Your task to perform on an android device: add a contact in the contacts app Image 0: 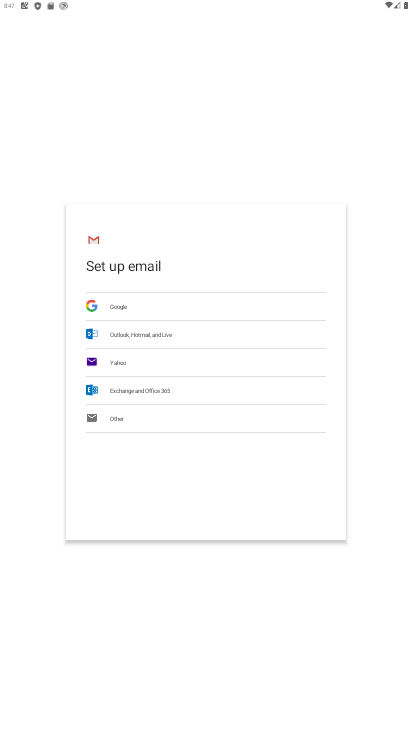
Step 0: press home button
Your task to perform on an android device: add a contact in the contacts app Image 1: 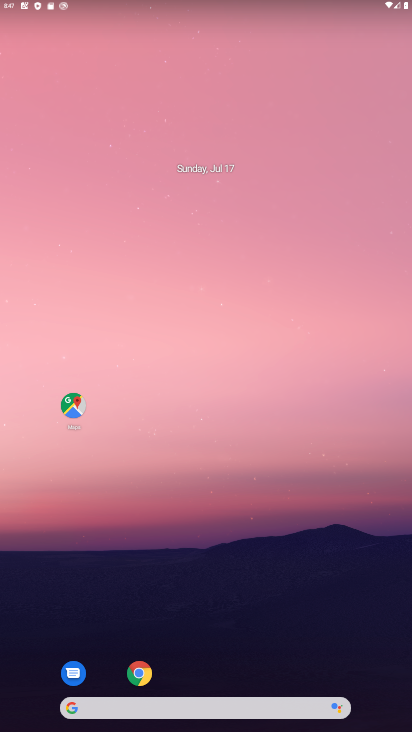
Step 1: drag from (289, 632) to (262, 95)
Your task to perform on an android device: add a contact in the contacts app Image 2: 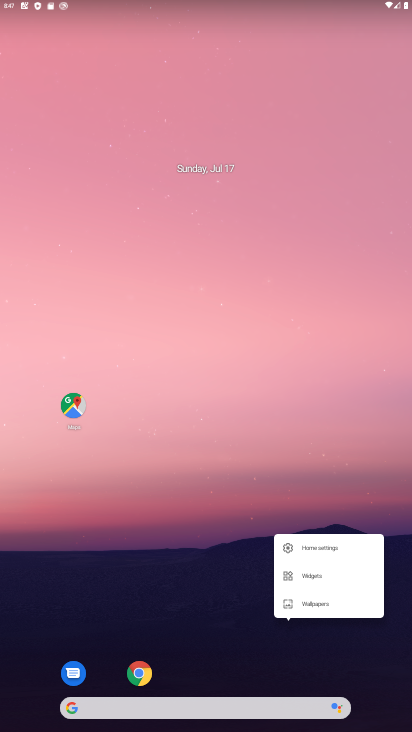
Step 2: click (226, 358)
Your task to perform on an android device: add a contact in the contacts app Image 3: 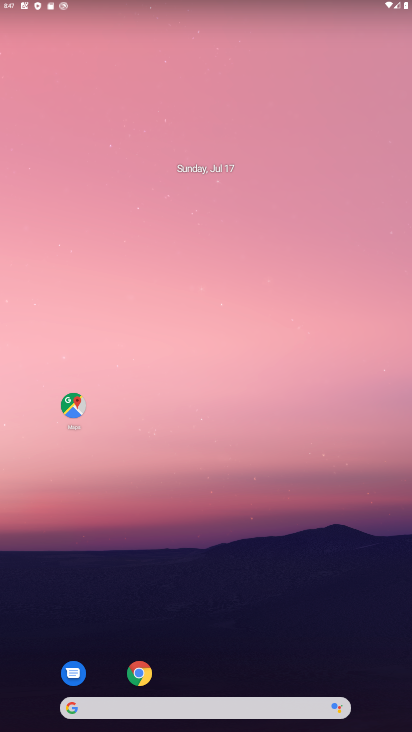
Step 3: click (226, 358)
Your task to perform on an android device: add a contact in the contacts app Image 4: 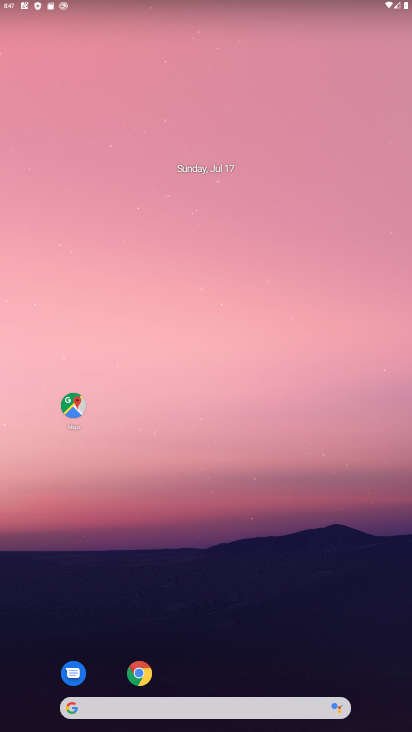
Step 4: drag from (283, 124) to (295, 77)
Your task to perform on an android device: add a contact in the contacts app Image 5: 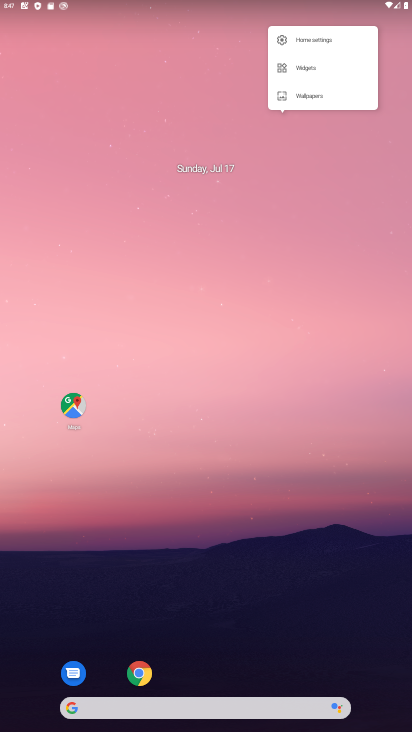
Step 5: click (165, 314)
Your task to perform on an android device: add a contact in the contacts app Image 6: 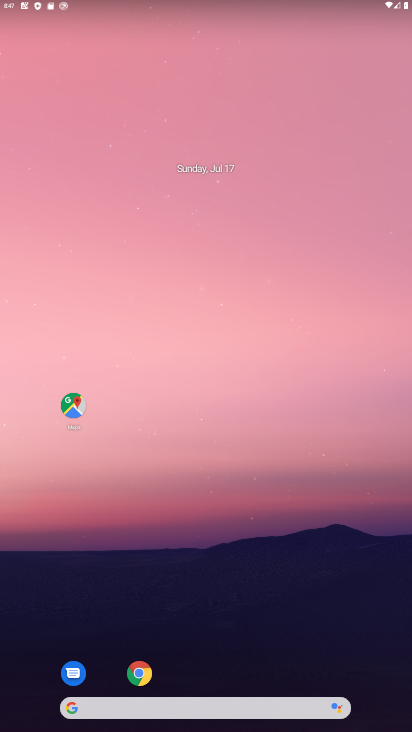
Step 6: click (298, 545)
Your task to perform on an android device: add a contact in the contacts app Image 7: 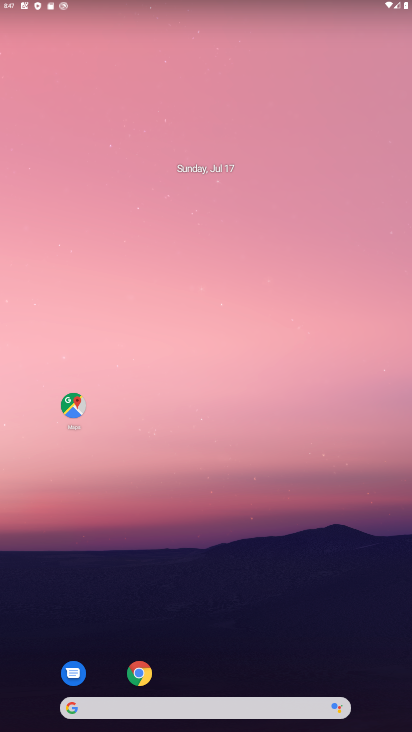
Step 7: drag from (257, 637) to (229, 143)
Your task to perform on an android device: add a contact in the contacts app Image 8: 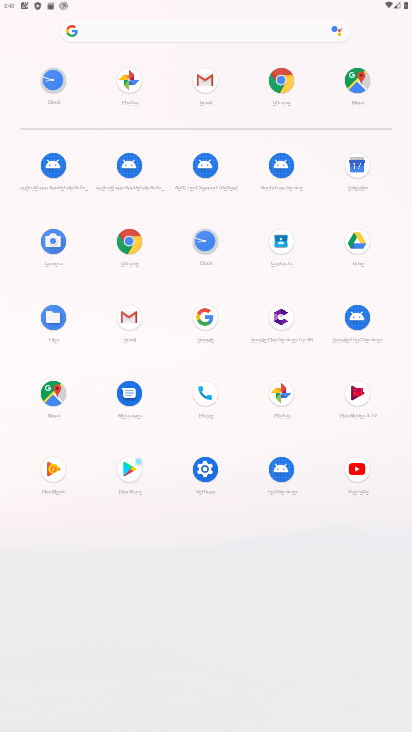
Step 8: click (279, 238)
Your task to perform on an android device: add a contact in the contacts app Image 9: 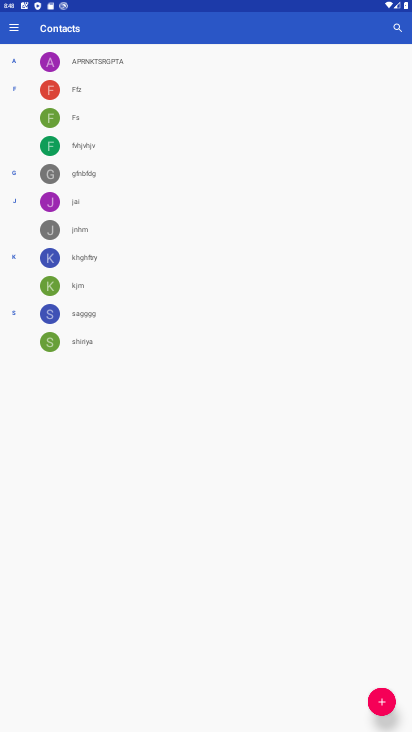
Step 9: click (376, 700)
Your task to perform on an android device: add a contact in the contacts app Image 10: 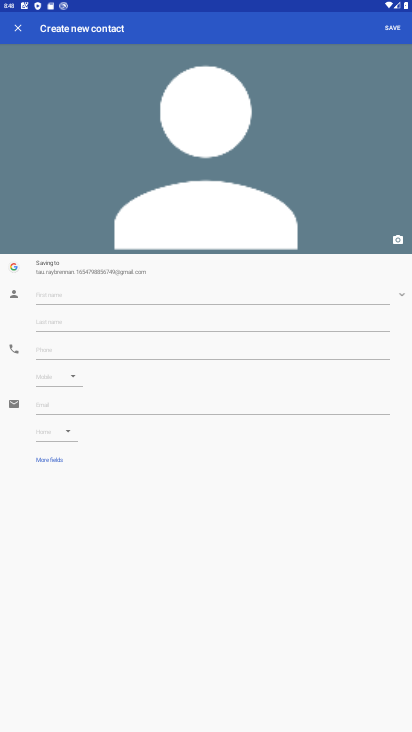
Step 10: click (172, 294)
Your task to perform on an android device: add a contact in the contacts app Image 11: 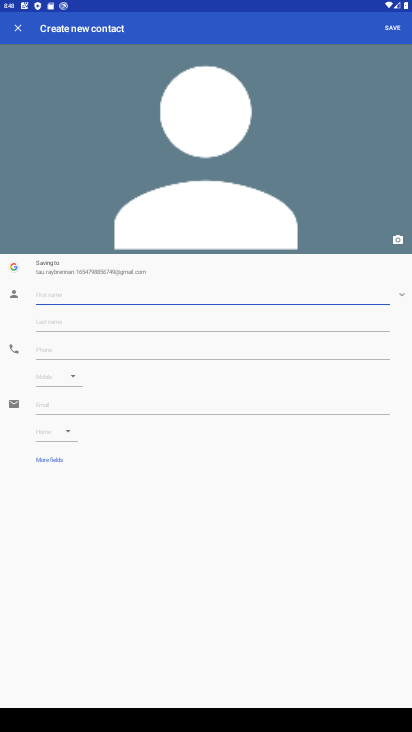
Step 11: type "bajra"
Your task to perform on an android device: add a contact in the contacts app Image 12: 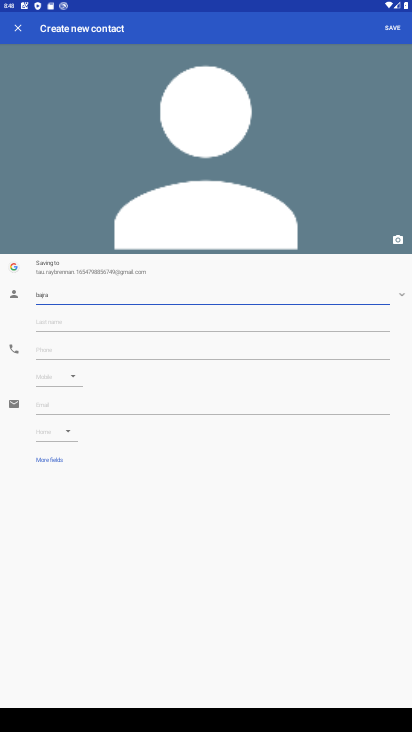
Step 12: click (394, 27)
Your task to perform on an android device: add a contact in the contacts app Image 13: 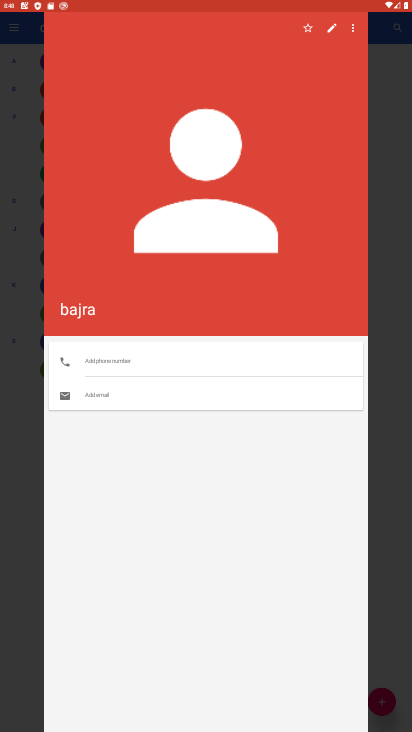
Step 13: task complete